Your task to perform on an android device: Turn on the flashlight Image 0: 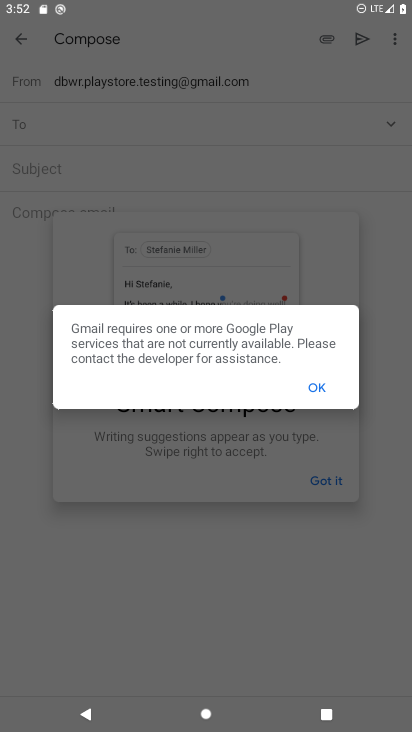
Step 0: press home button
Your task to perform on an android device: Turn on the flashlight Image 1: 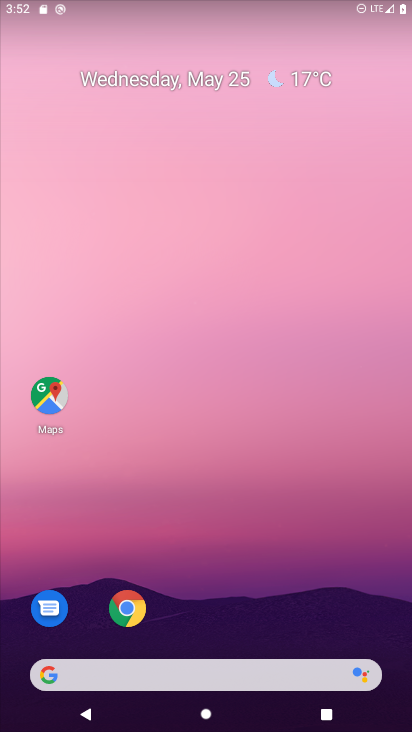
Step 1: drag from (209, 26) to (254, 578)
Your task to perform on an android device: Turn on the flashlight Image 2: 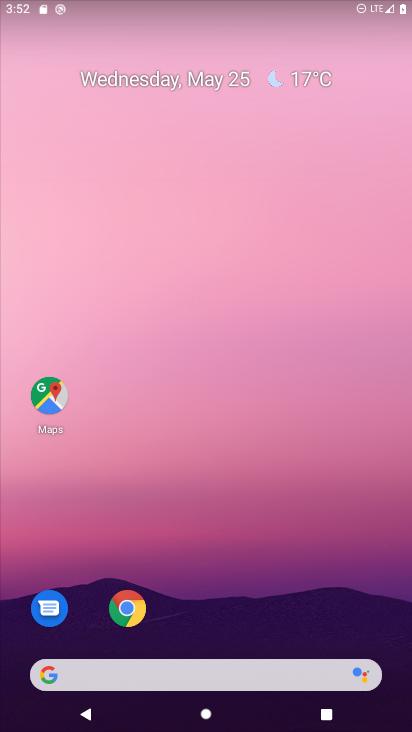
Step 2: drag from (256, 25) to (233, 484)
Your task to perform on an android device: Turn on the flashlight Image 3: 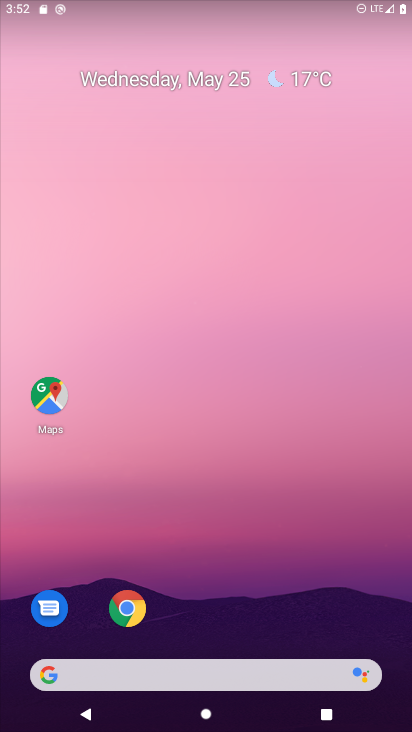
Step 3: drag from (218, 16) to (267, 438)
Your task to perform on an android device: Turn on the flashlight Image 4: 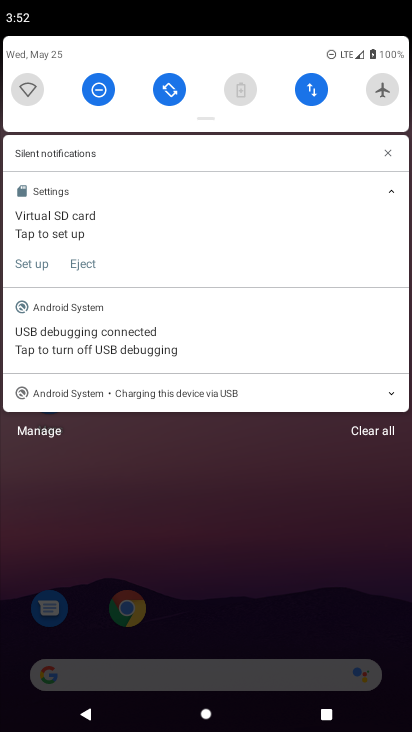
Step 4: drag from (199, 115) to (204, 416)
Your task to perform on an android device: Turn on the flashlight Image 5: 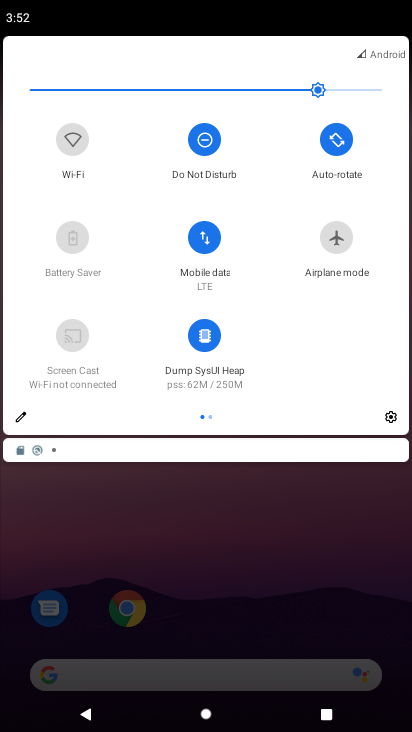
Step 5: click (19, 411)
Your task to perform on an android device: Turn on the flashlight Image 6: 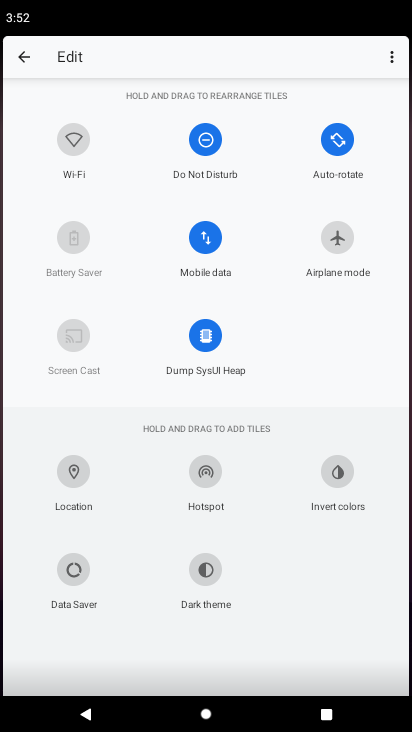
Step 6: task complete